Your task to perform on an android device: Open network settings Image 0: 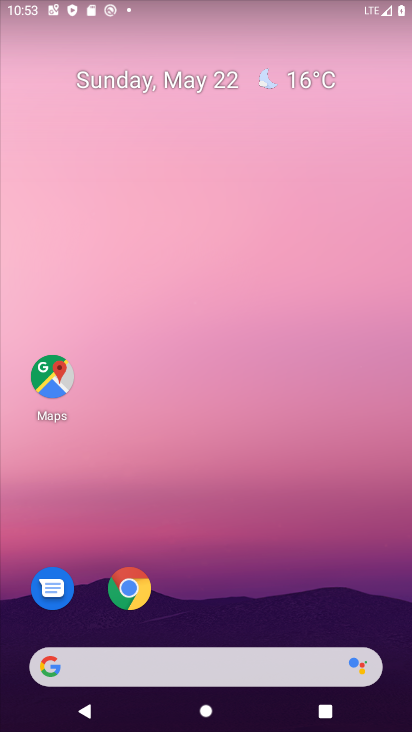
Step 0: drag from (206, 598) to (215, 107)
Your task to perform on an android device: Open network settings Image 1: 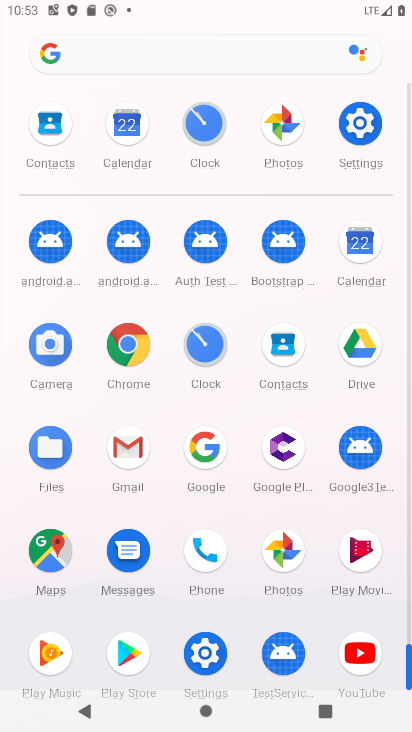
Step 1: click (371, 139)
Your task to perform on an android device: Open network settings Image 2: 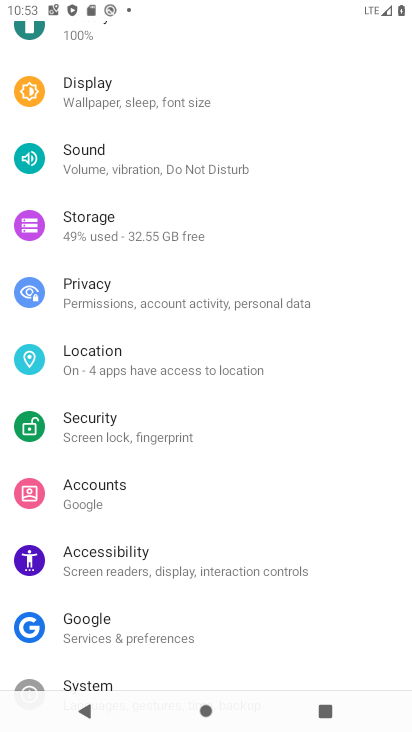
Step 2: drag from (249, 167) to (253, 513)
Your task to perform on an android device: Open network settings Image 3: 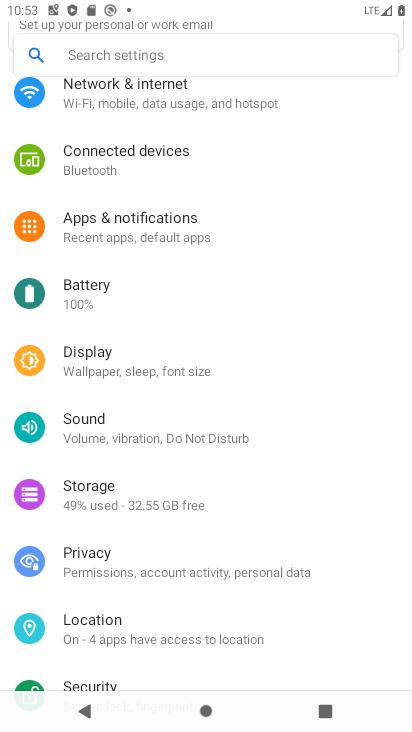
Step 3: drag from (228, 171) to (259, 466)
Your task to perform on an android device: Open network settings Image 4: 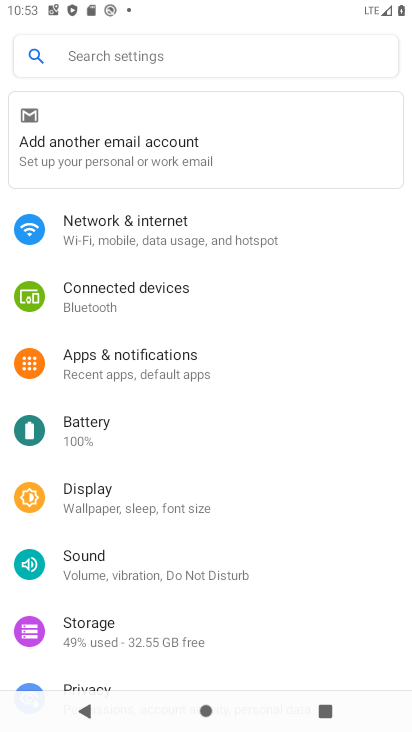
Step 4: click (183, 214)
Your task to perform on an android device: Open network settings Image 5: 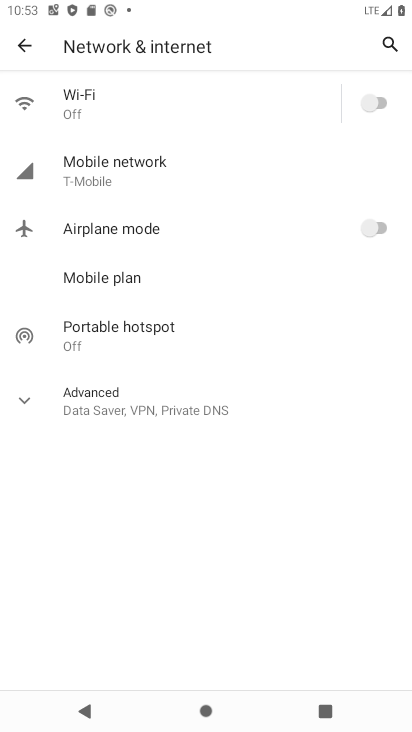
Step 5: task complete